Your task to perform on an android device: Open internet settings Image 0: 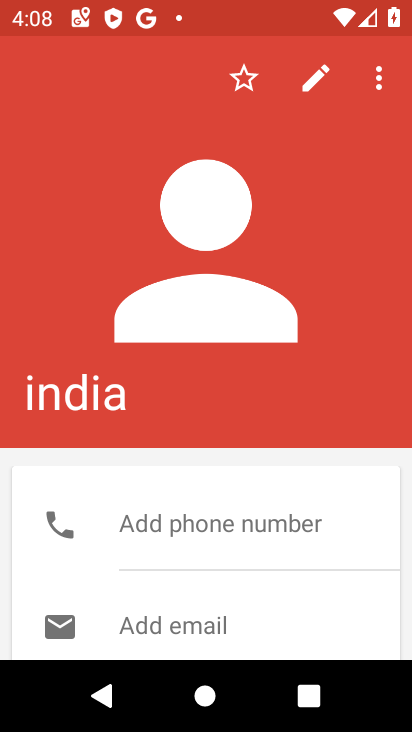
Step 0: press home button
Your task to perform on an android device: Open internet settings Image 1: 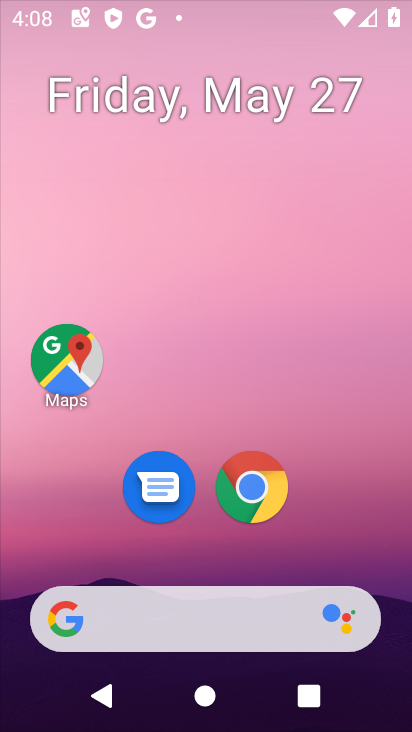
Step 1: drag from (305, 469) to (285, 68)
Your task to perform on an android device: Open internet settings Image 2: 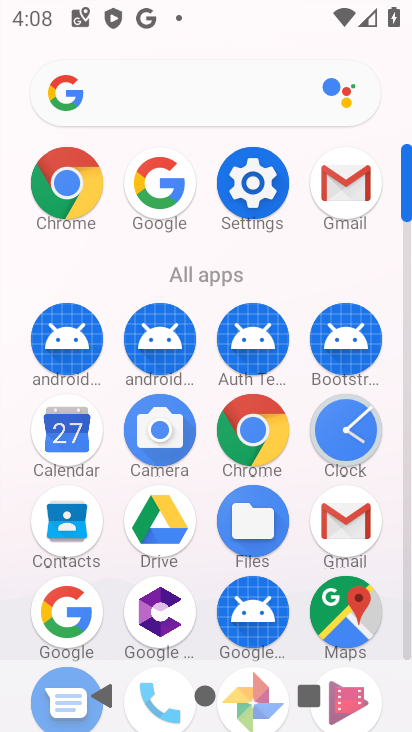
Step 2: click (256, 189)
Your task to perform on an android device: Open internet settings Image 3: 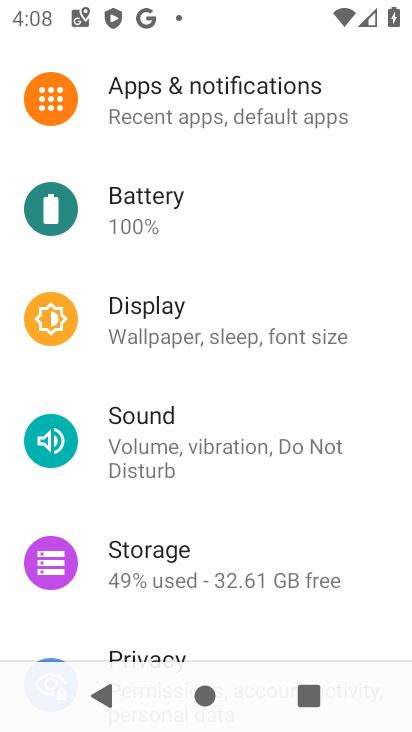
Step 3: drag from (211, 515) to (264, 59)
Your task to perform on an android device: Open internet settings Image 4: 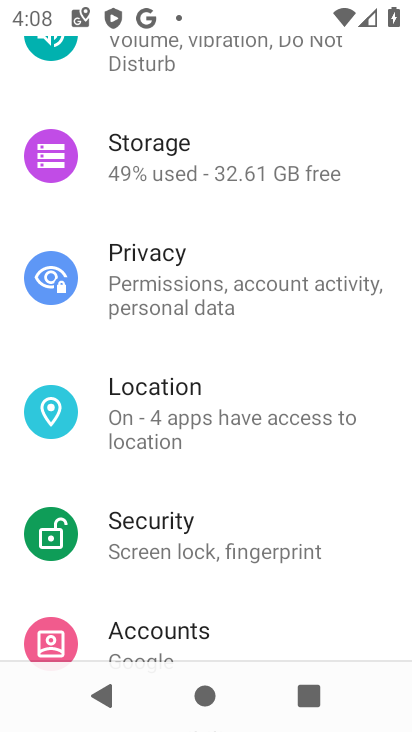
Step 4: drag from (231, 130) to (242, 710)
Your task to perform on an android device: Open internet settings Image 5: 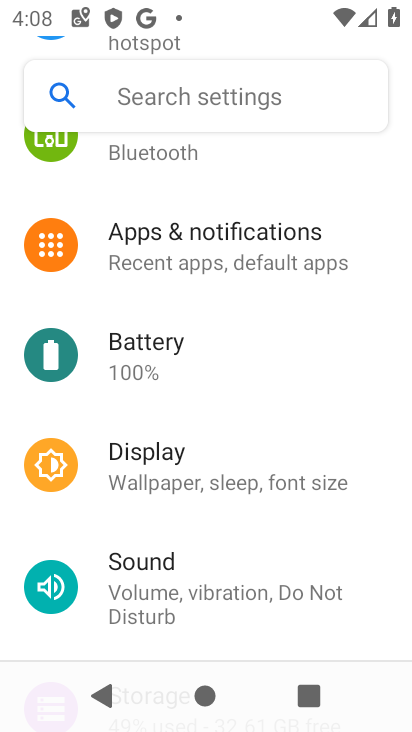
Step 5: drag from (238, 167) to (245, 668)
Your task to perform on an android device: Open internet settings Image 6: 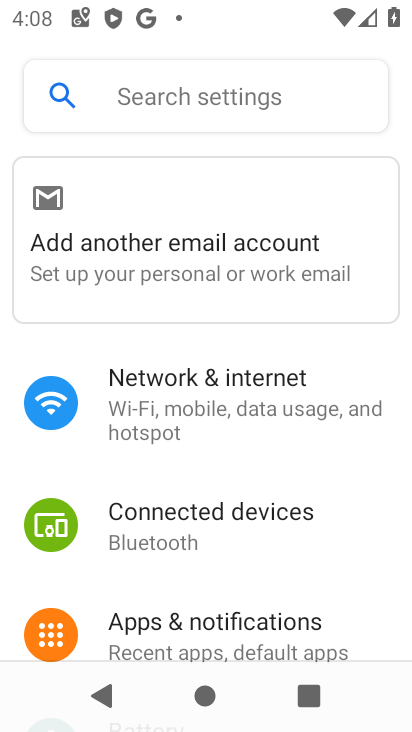
Step 6: click (202, 382)
Your task to perform on an android device: Open internet settings Image 7: 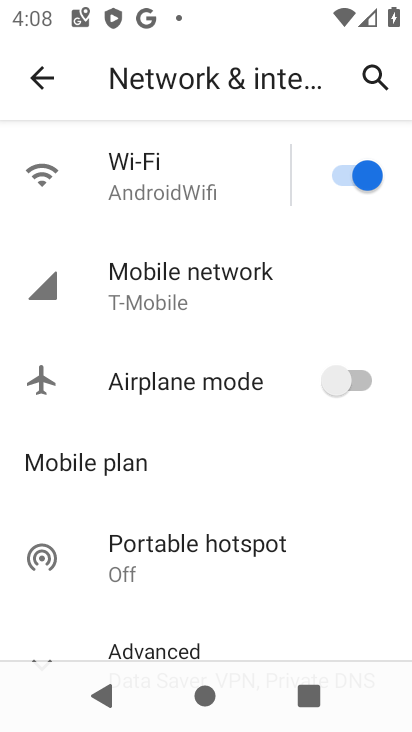
Step 7: task complete